Your task to perform on an android device: see tabs open on other devices in the chrome app Image 0: 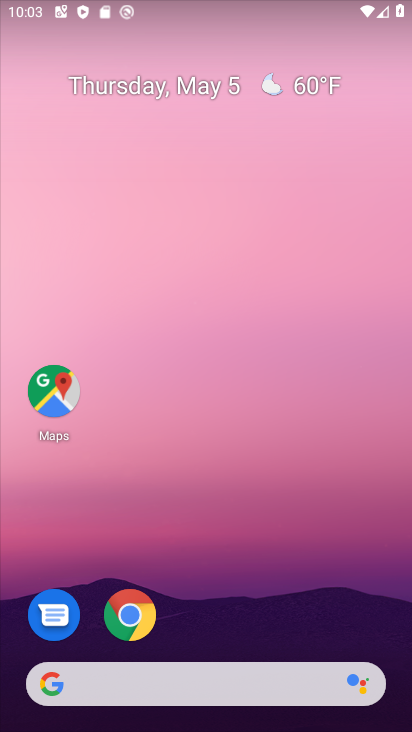
Step 0: click (127, 616)
Your task to perform on an android device: see tabs open on other devices in the chrome app Image 1: 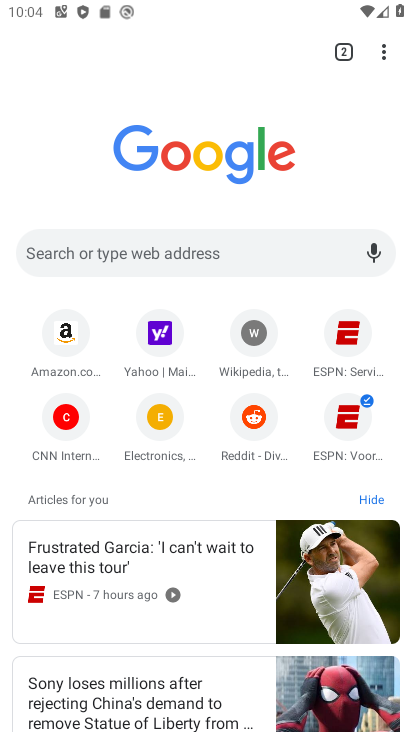
Step 1: click (199, 311)
Your task to perform on an android device: see tabs open on other devices in the chrome app Image 2: 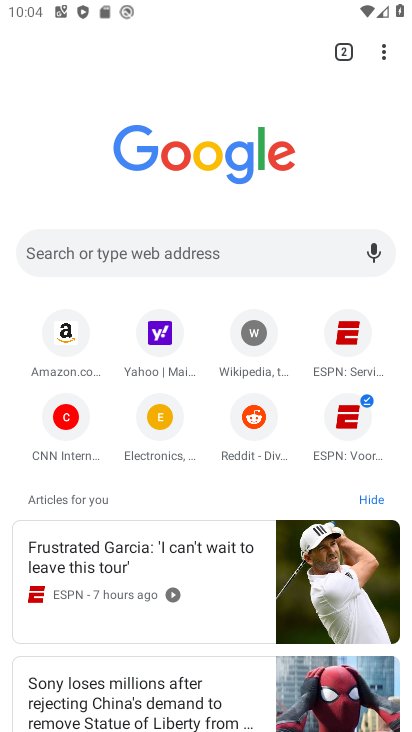
Step 2: click (335, 53)
Your task to perform on an android device: see tabs open on other devices in the chrome app Image 3: 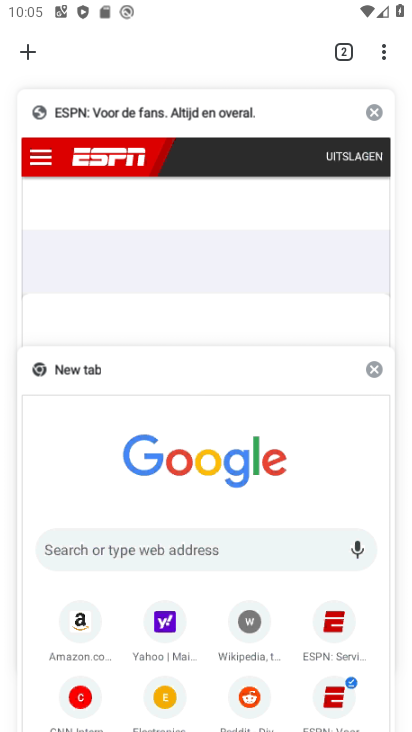
Step 3: task complete